Your task to perform on an android device: Open Chrome and go to the settings page Image 0: 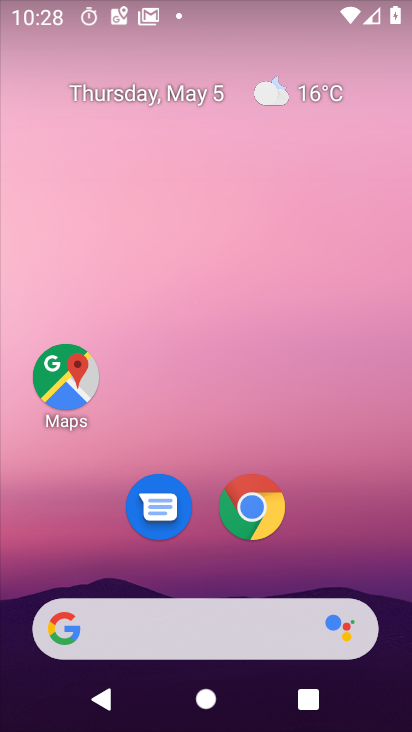
Step 0: click (257, 504)
Your task to perform on an android device: Open Chrome and go to the settings page Image 1: 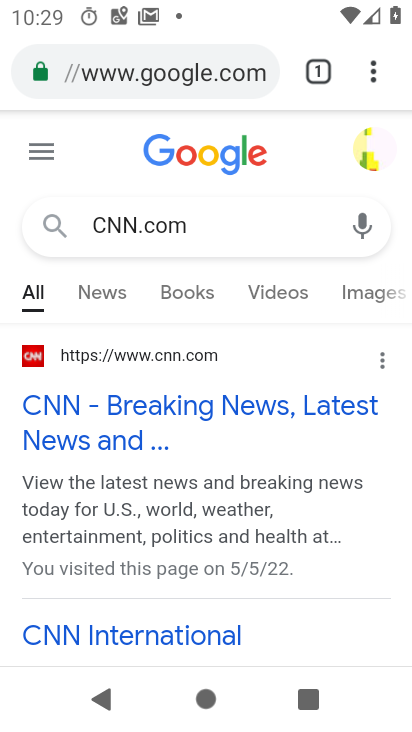
Step 1: click (371, 75)
Your task to perform on an android device: Open Chrome and go to the settings page Image 2: 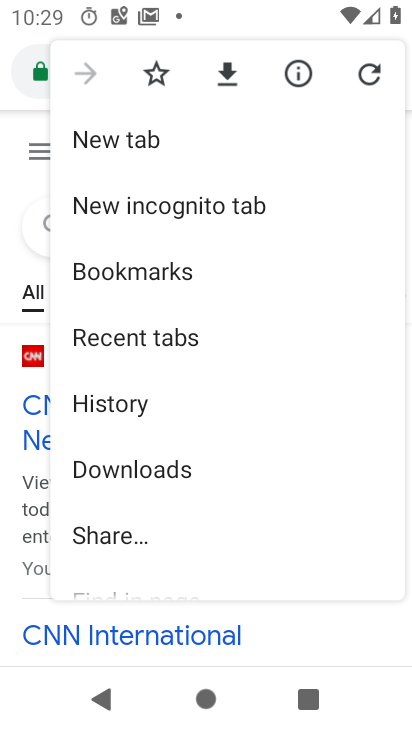
Step 2: drag from (172, 535) to (175, 191)
Your task to perform on an android device: Open Chrome and go to the settings page Image 3: 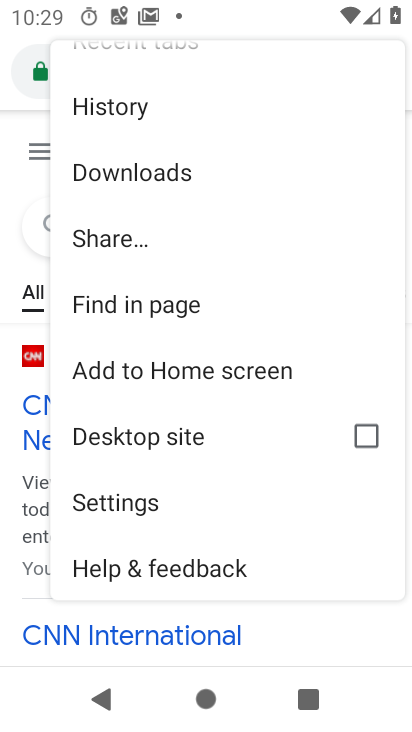
Step 3: click (121, 505)
Your task to perform on an android device: Open Chrome and go to the settings page Image 4: 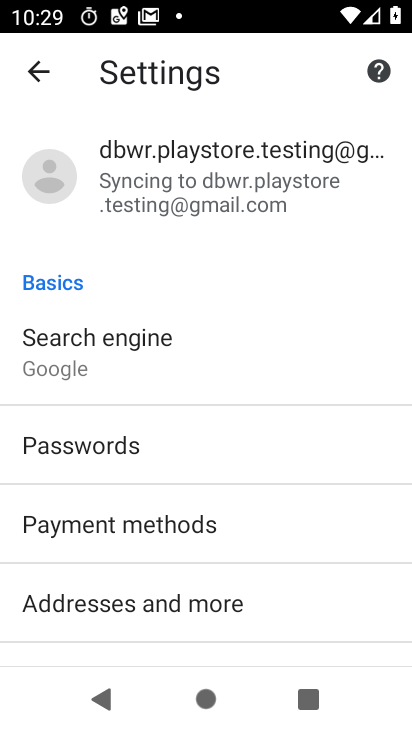
Step 4: task complete